Your task to perform on an android device: change the clock display to show seconds Image 0: 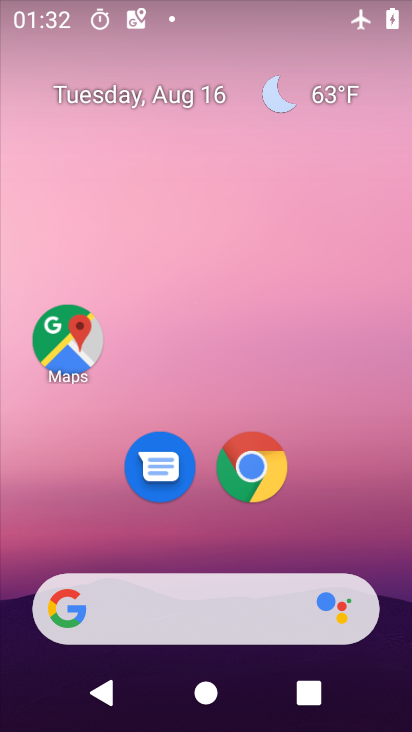
Step 0: press home button
Your task to perform on an android device: change the clock display to show seconds Image 1: 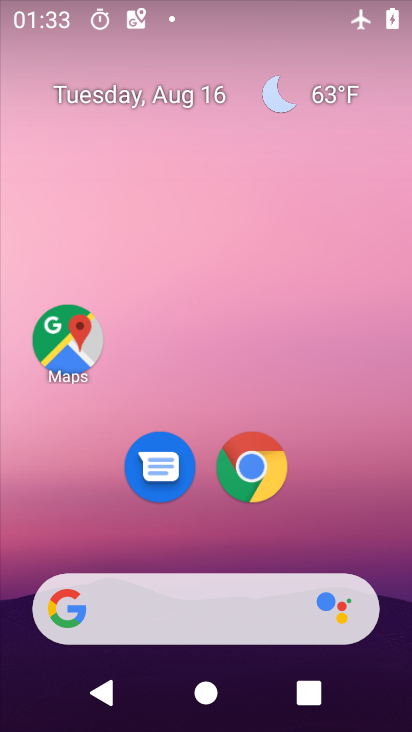
Step 1: drag from (375, 550) to (364, 23)
Your task to perform on an android device: change the clock display to show seconds Image 2: 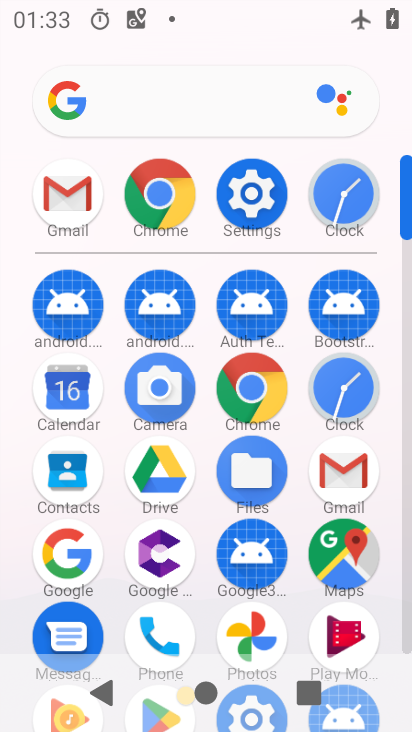
Step 2: click (343, 368)
Your task to perform on an android device: change the clock display to show seconds Image 3: 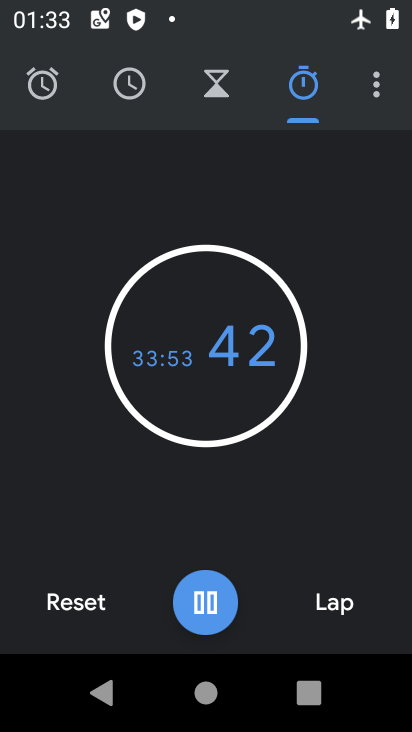
Step 3: click (376, 97)
Your task to perform on an android device: change the clock display to show seconds Image 4: 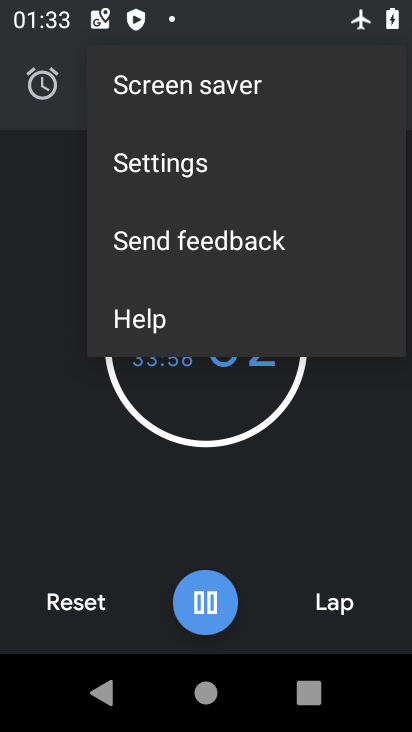
Step 4: click (208, 177)
Your task to perform on an android device: change the clock display to show seconds Image 5: 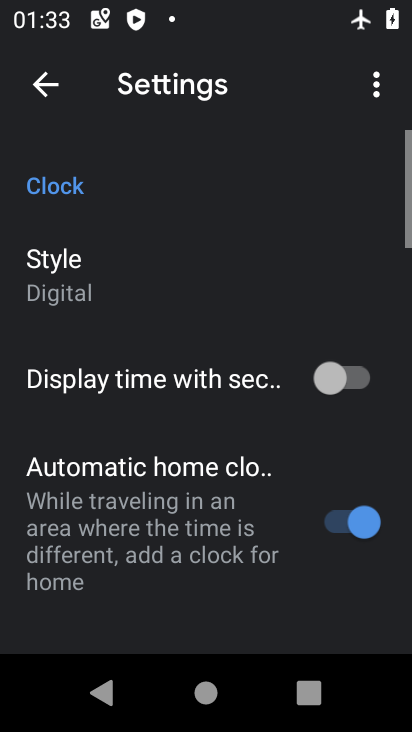
Step 5: drag from (286, 509) to (274, 370)
Your task to perform on an android device: change the clock display to show seconds Image 6: 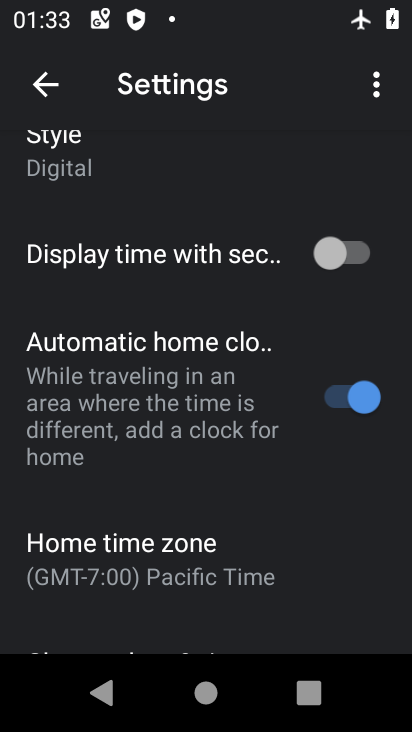
Step 6: drag from (272, 545) to (286, 392)
Your task to perform on an android device: change the clock display to show seconds Image 7: 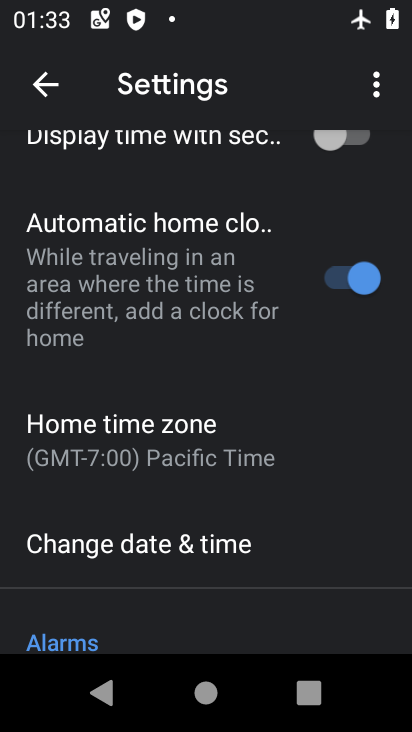
Step 7: drag from (291, 515) to (297, 389)
Your task to perform on an android device: change the clock display to show seconds Image 8: 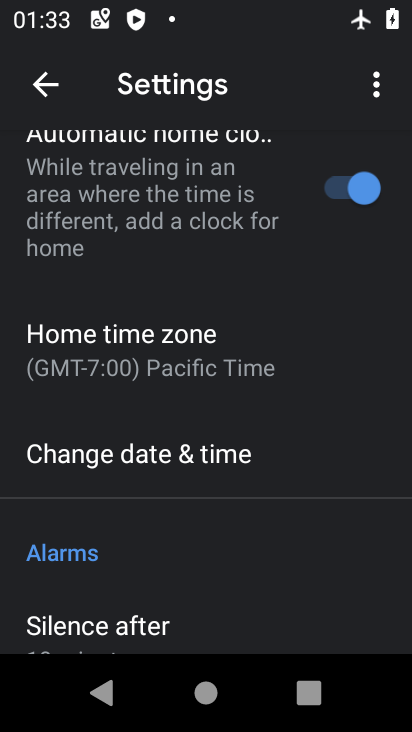
Step 8: drag from (259, 547) to (287, 366)
Your task to perform on an android device: change the clock display to show seconds Image 9: 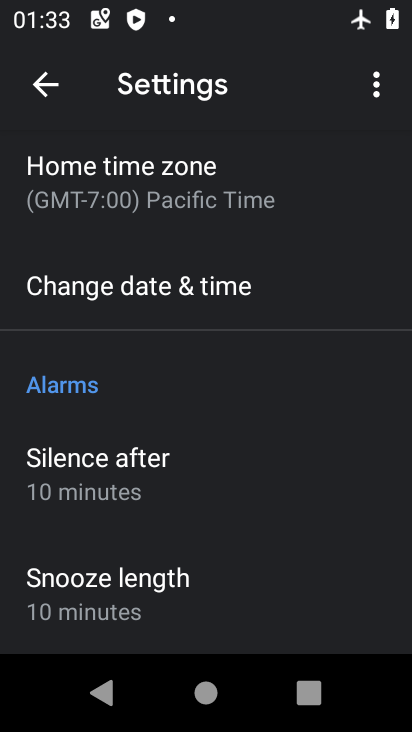
Step 9: drag from (264, 553) to (273, 377)
Your task to perform on an android device: change the clock display to show seconds Image 10: 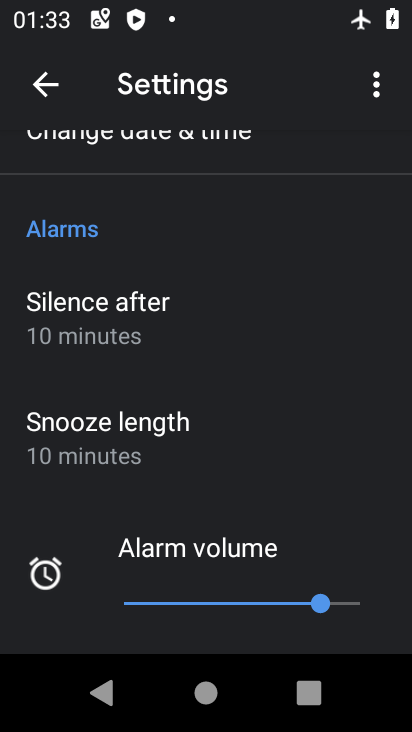
Step 10: drag from (282, 537) to (286, 330)
Your task to perform on an android device: change the clock display to show seconds Image 11: 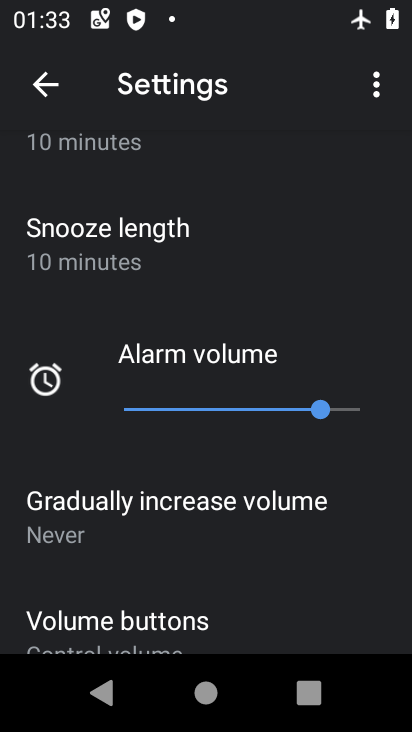
Step 11: drag from (257, 537) to (279, 345)
Your task to perform on an android device: change the clock display to show seconds Image 12: 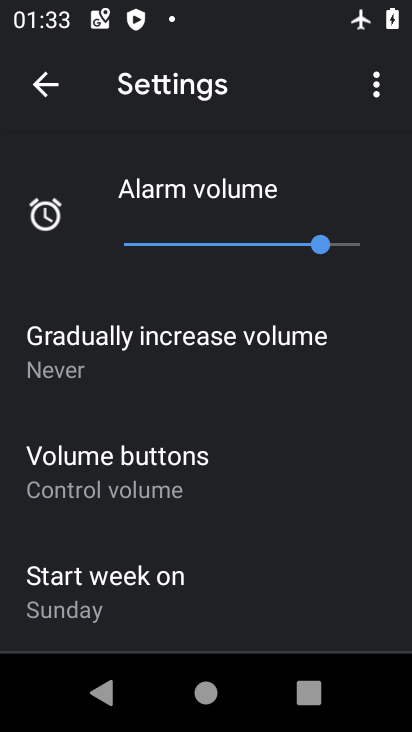
Step 12: drag from (281, 294) to (284, 441)
Your task to perform on an android device: change the clock display to show seconds Image 13: 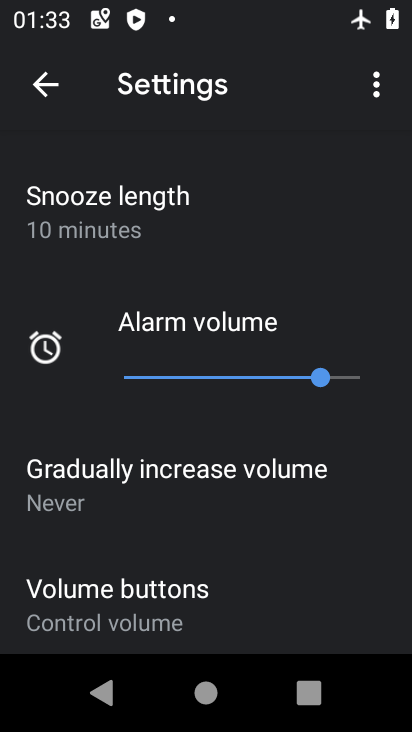
Step 13: drag from (286, 241) to (274, 430)
Your task to perform on an android device: change the clock display to show seconds Image 14: 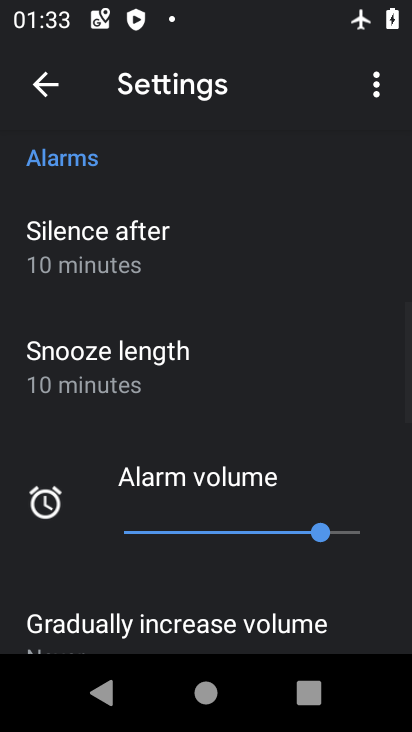
Step 14: drag from (288, 242) to (284, 378)
Your task to perform on an android device: change the clock display to show seconds Image 15: 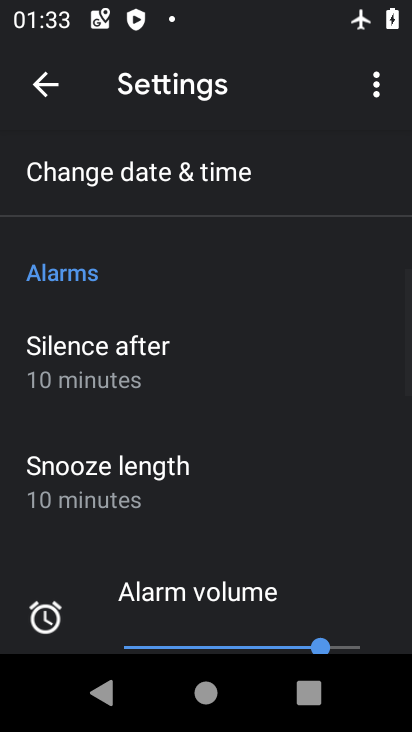
Step 15: drag from (292, 195) to (295, 382)
Your task to perform on an android device: change the clock display to show seconds Image 16: 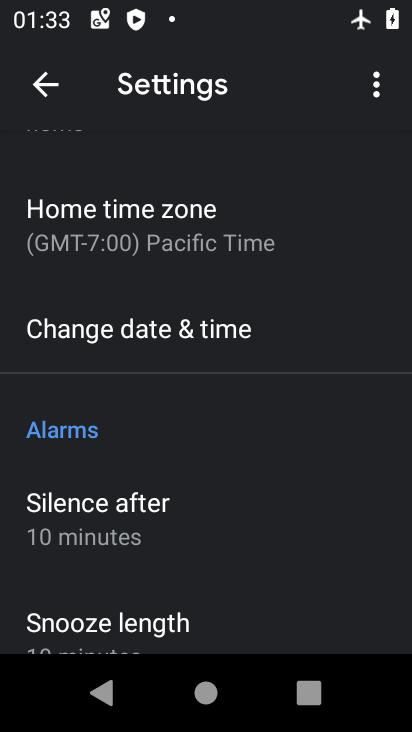
Step 16: drag from (291, 254) to (285, 392)
Your task to perform on an android device: change the clock display to show seconds Image 17: 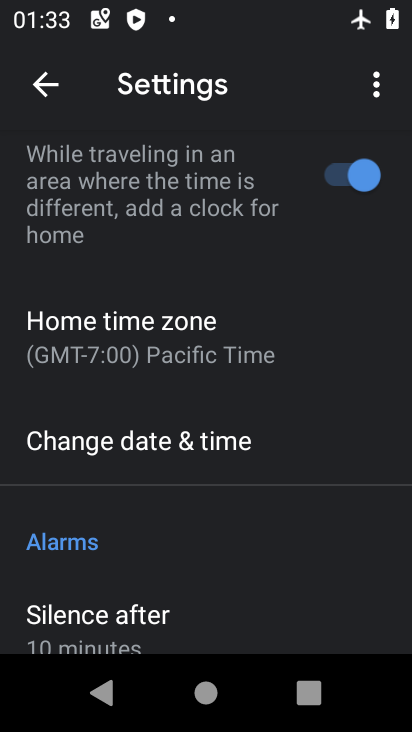
Step 17: drag from (292, 193) to (296, 394)
Your task to perform on an android device: change the clock display to show seconds Image 18: 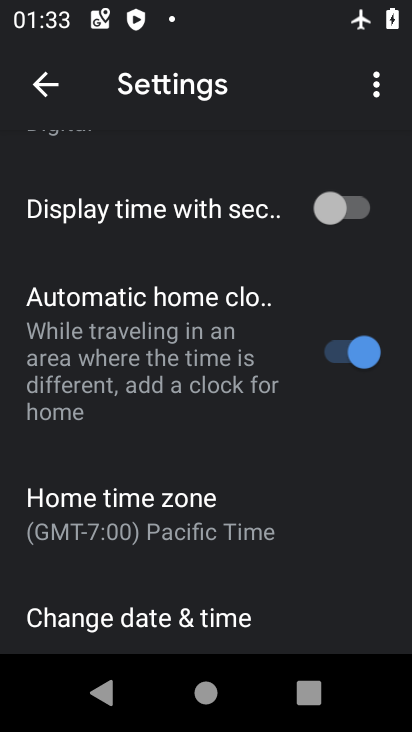
Step 18: drag from (288, 168) to (277, 367)
Your task to perform on an android device: change the clock display to show seconds Image 19: 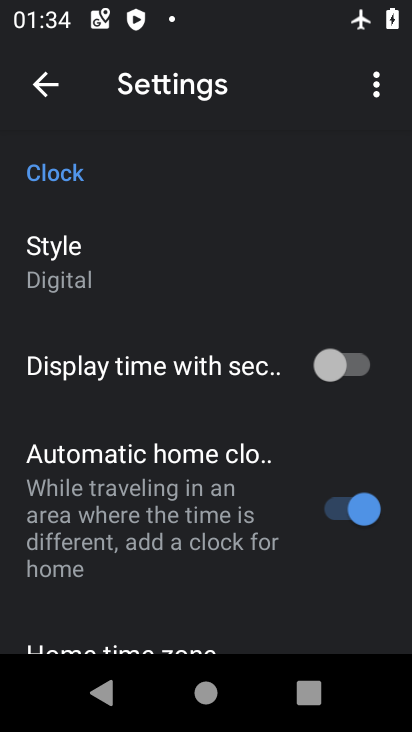
Step 19: drag from (282, 178) to (277, 446)
Your task to perform on an android device: change the clock display to show seconds Image 20: 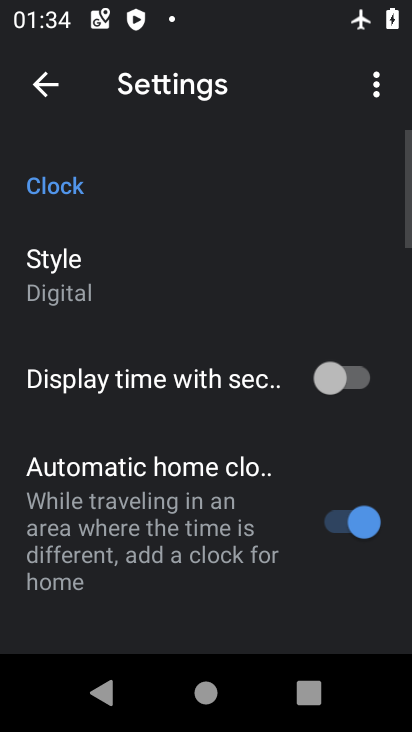
Step 20: click (336, 381)
Your task to perform on an android device: change the clock display to show seconds Image 21: 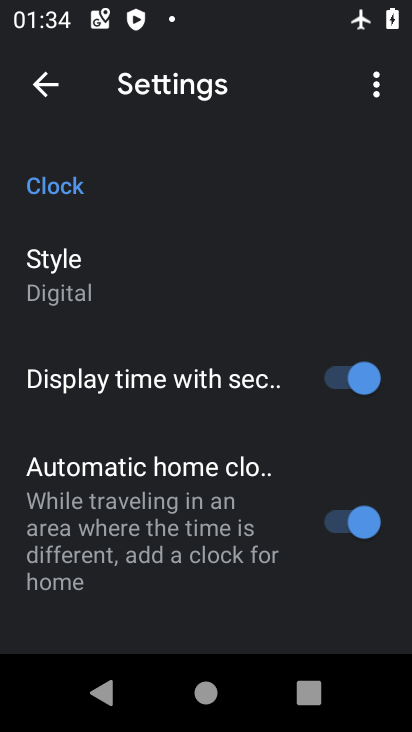
Step 21: task complete